Your task to perform on an android device: Toggle the flashlight Image 0: 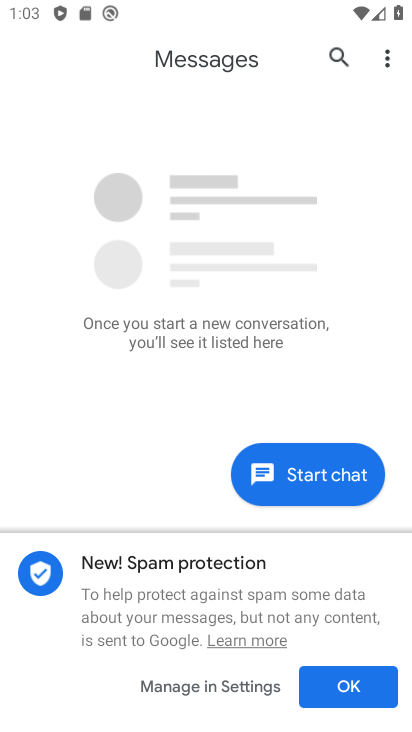
Step 0: press back button
Your task to perform on an android device: Toggle the flashlight Image 1: 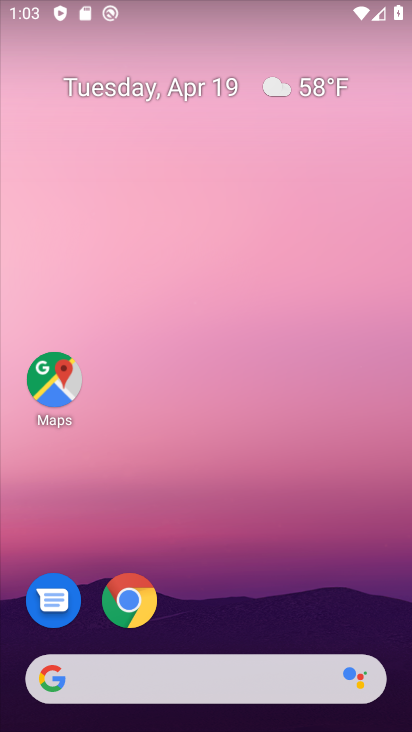
Step 1: drag from (238, 420) to (238, 462)
Your task to perform on an android device: Toggle the flashlight Image 2: 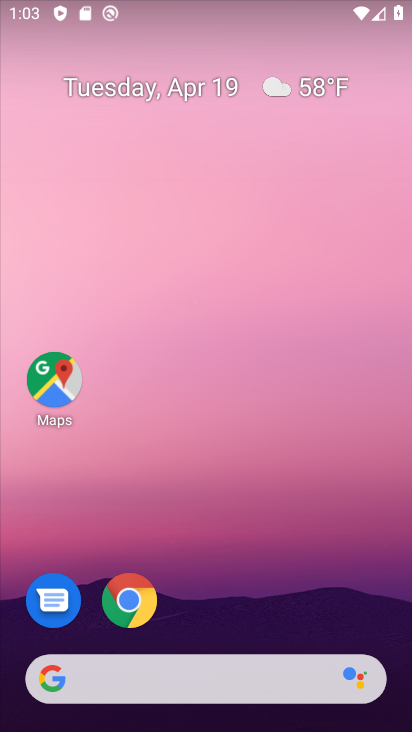
Step 2: drag from (205, 8) to (246, 606)
Your task to perform on an android device: Toggle the flashlight Image 3: 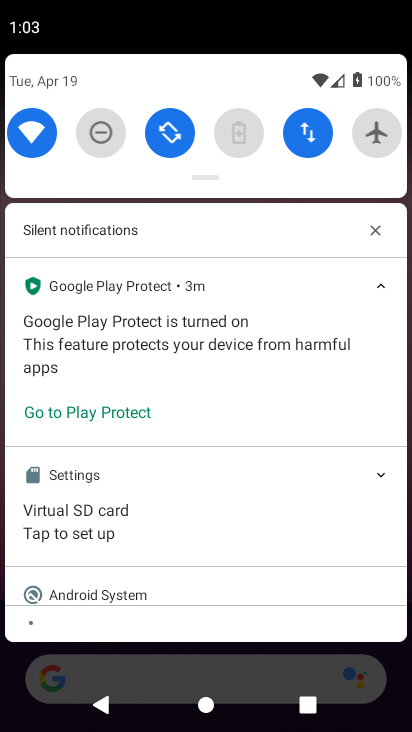
Step 3: drag from (210, 278) to (236, 567)
Your task to perform on an android device: Toggle the flashlight Image 4: 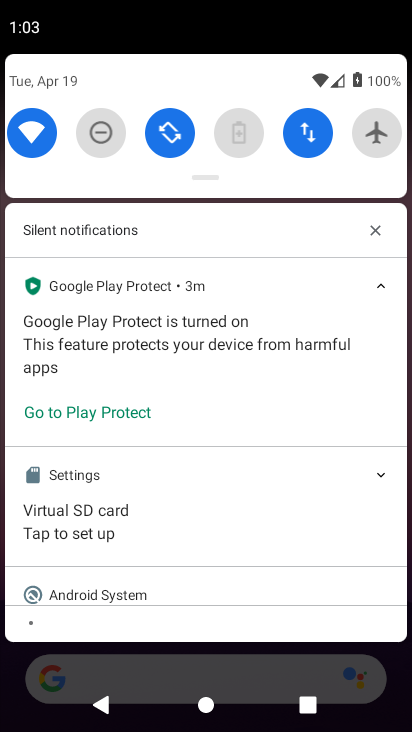
Step 4: drag from (200, 206) to (215, 540)
Your task to perform on an android device: Toggle the flashlight Image 5: 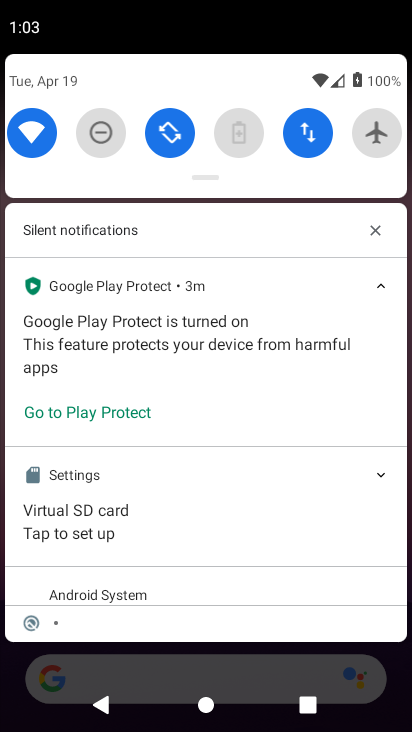
Step 5: drag from (208, 217) to (205, 590)
Your task to perform on an android device: Toggle the flashlight Image 6: 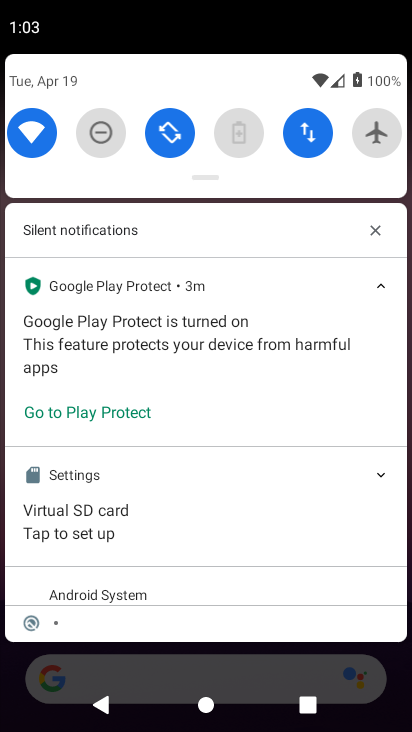
Step 6: drag from (213, 193) to (201, 602)
Your task to perform on an android device: Toggle the flashlight Image 7: 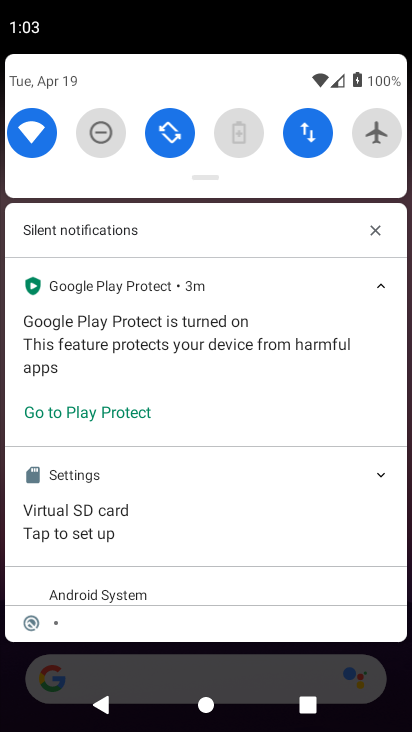
Step 7: drag from (216, 374) to (216, 641)
Your task to perform on an android device: Toggle the flashlight Image 8: 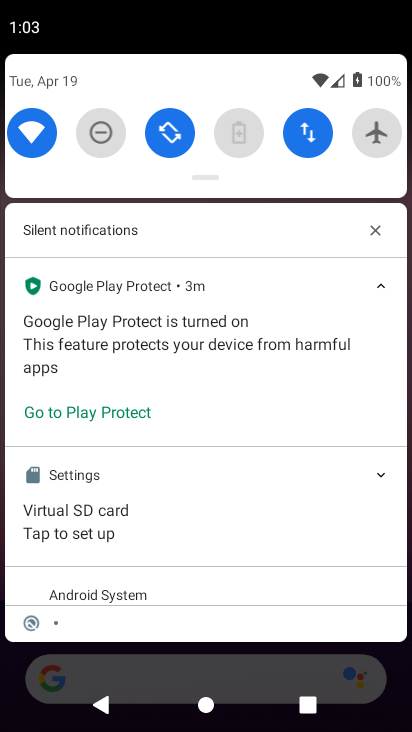
Step 8: drag from (201, 180) to (181, 607)
Your task to perform on an android device: Toggle the flashlight Image 9: 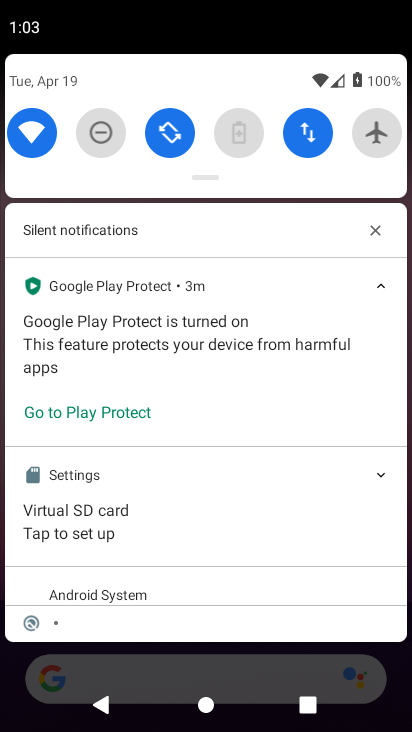
Step 9: drag from (215, 179) to (134, 616)
Your task to perform on an android device: Toggle the flashlight Image 10: 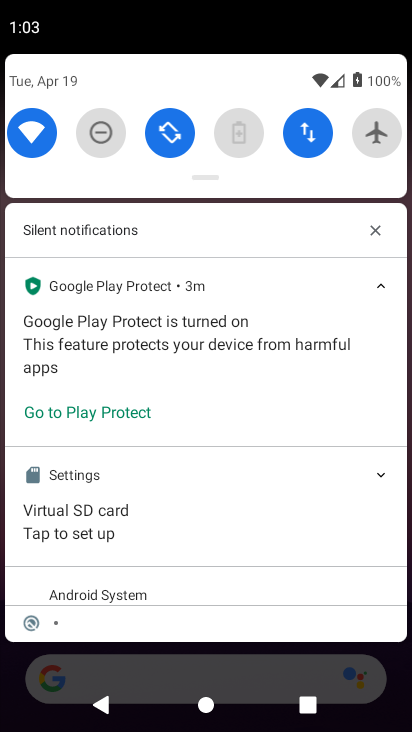
Step 10: drag from (205, 262) to (189, 729)
Your task to perform on an android device: Toggle the flashlight Image 11: 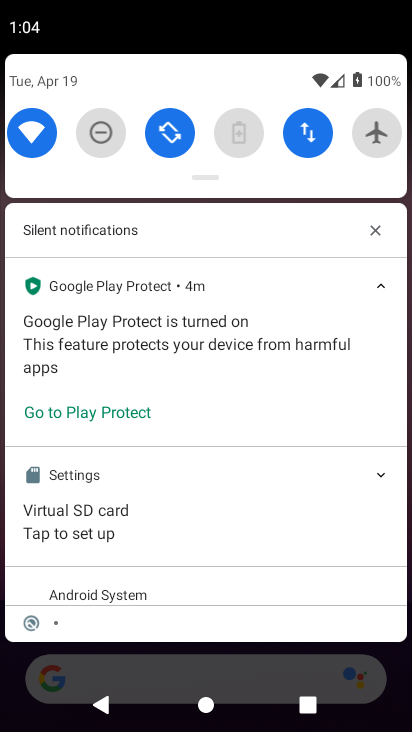
Step 11: click (370, 227)
Your task to perform on an android device: Toggle the flashlight Image 12: 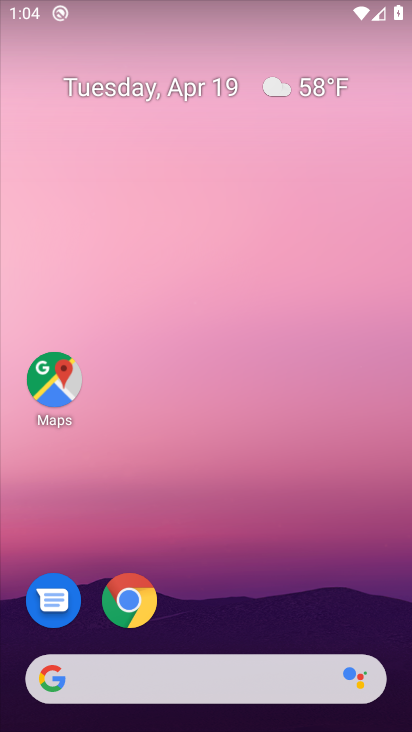
Step 12: task complete